Your task to perform on an android device: find which apps use the phone's location Image 0: 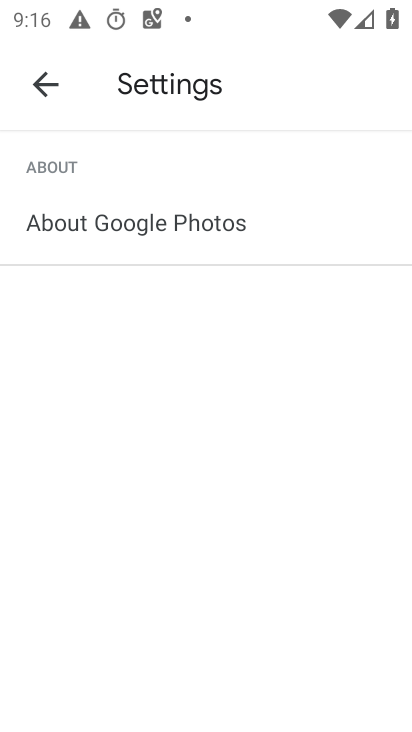
Step 0: press home button
Your task to perform on an android device: find which apps use the phone's location Image 1: 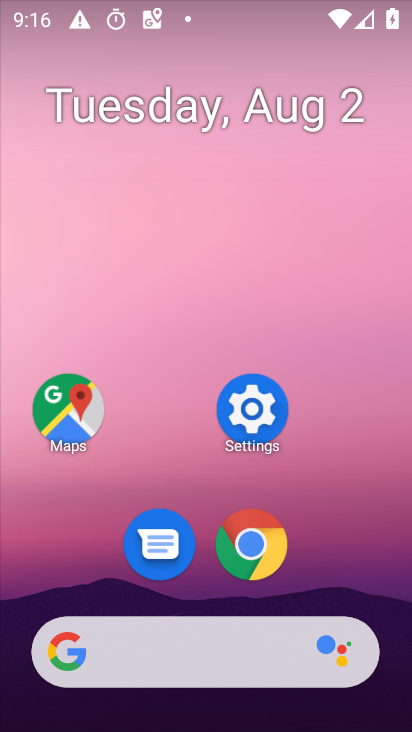
Step 1: click (261, 411)
Your task to perform on an android device: find which apps use the phone's location Image 2: 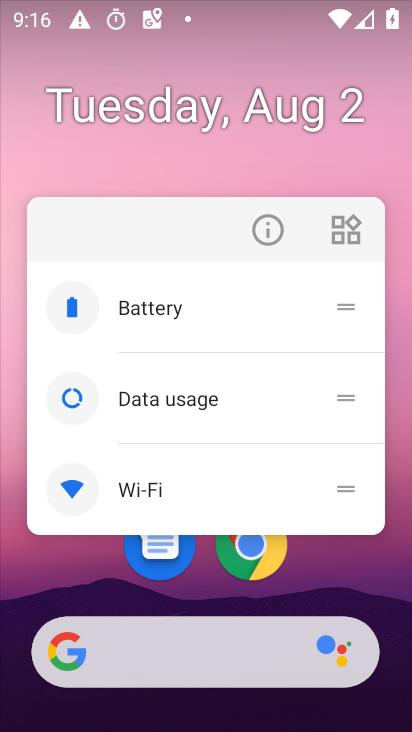
Step 2: click (349, 557)
Your task to perform on an android device: find which apps use the phone's location Image 3: 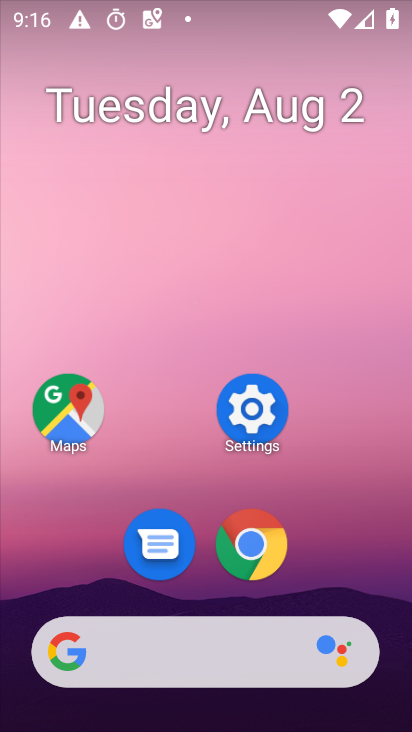
Step 3: click (246, 409)
Your task to perform on an android device: find which apps use the phone's location Image 4: 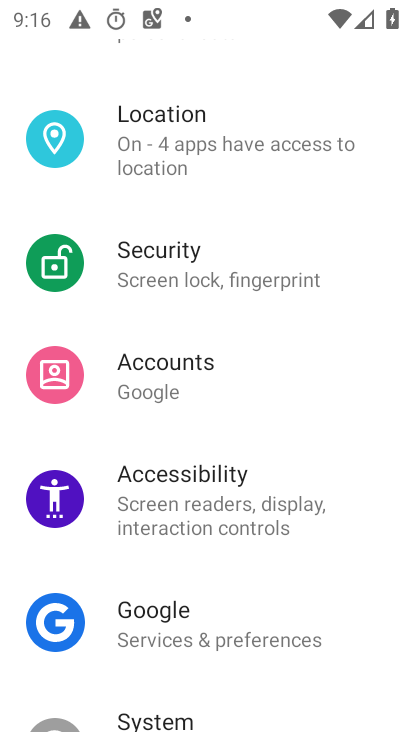
Step 4: click (186, 134)
Your task to perform on an android device: find which apps use the phone's location Image 5: 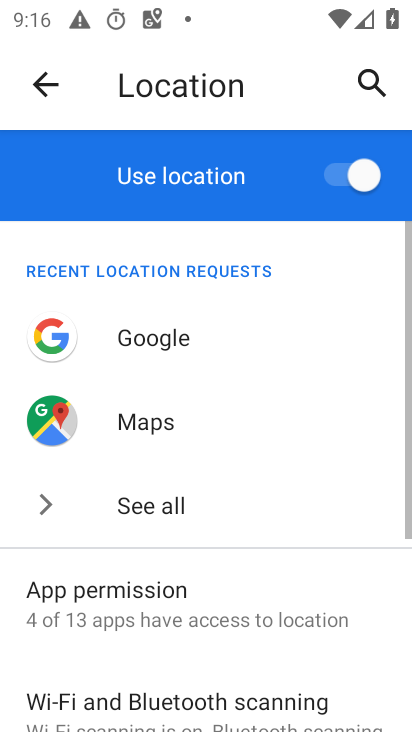
Step 5: click (130, 595)
Your task to perform on an android device: find which apps use the phone's location Image 6: 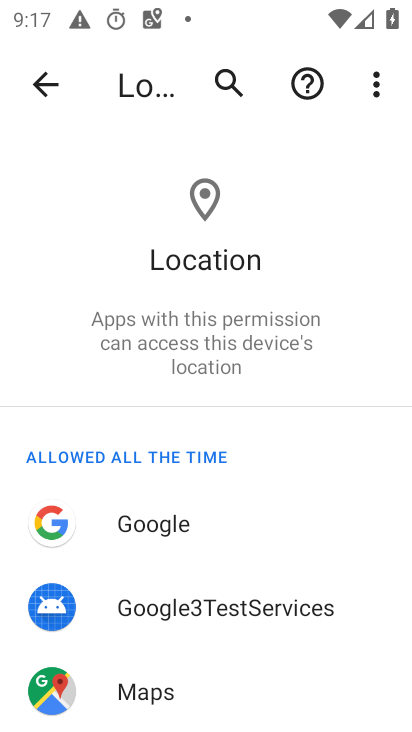
Step 6: drag from (239, 664) to (263, 290)
Your task to perform on an android device: find which apps use the phone's location Image 7: 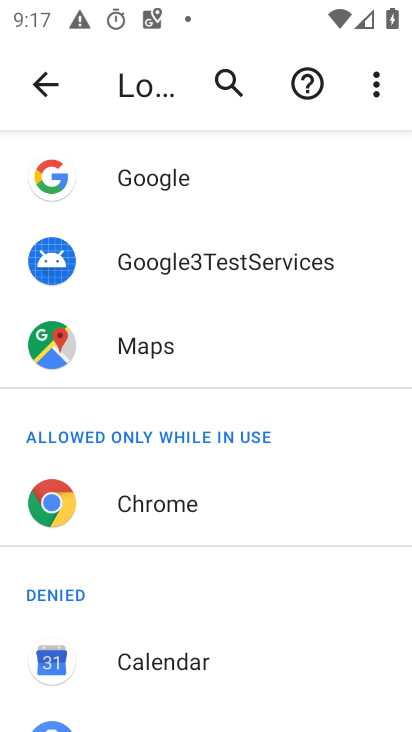
Step 7: drag from (229, 648) to (295, 179)
Your task to perform on an android device: find which apps use the phone's location Image 8: 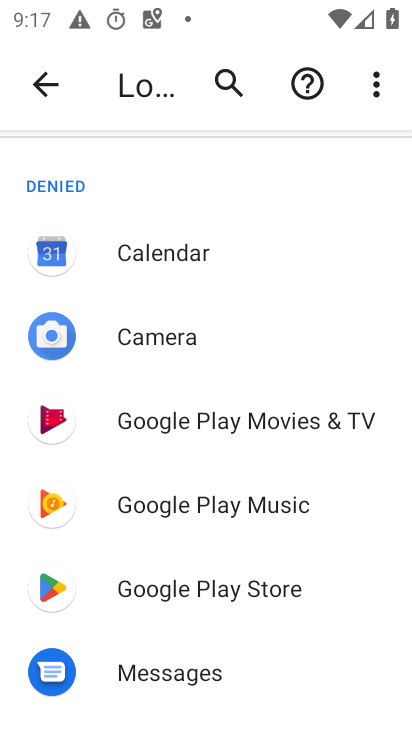
Step 8: drag from (248, 618) to (328, 242)
Your task to perform on an android device: find which apps use the phone's location Image 9: 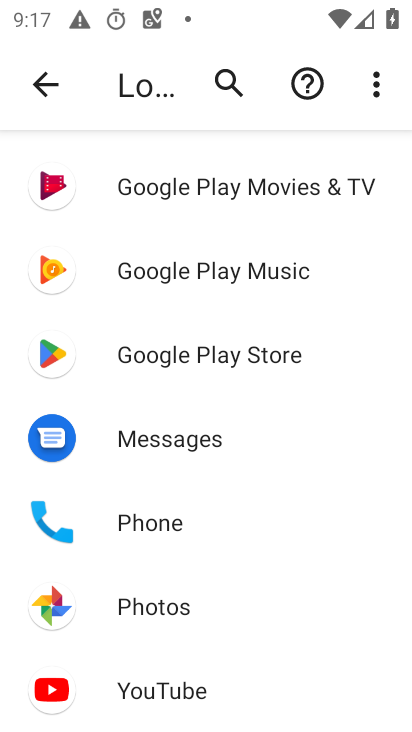
Step 9: click (180, 522)
Your task to perform on an android device: find which apps use the phone's location Image 10: 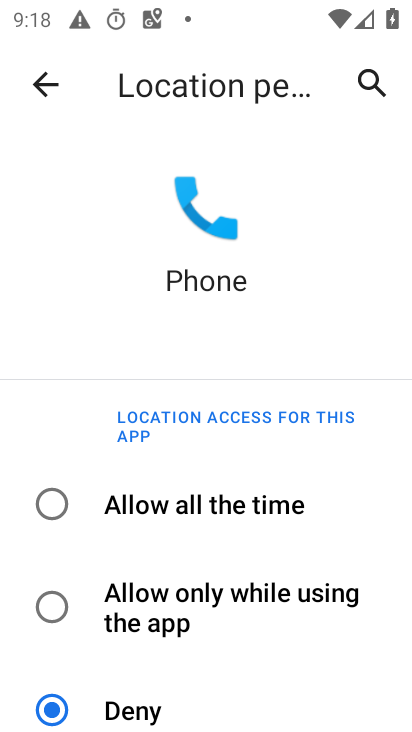
Step 10: task complete